Your task to perform on an android device: Show me popular videos on Youtube Image 0: 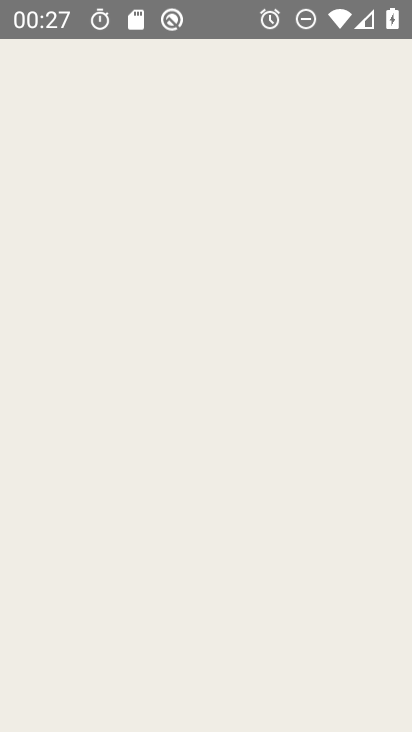
Step 0: drag from (349, 559) to (329, 178)
Your task to perform on an android device: Show me popular videos on Youtube Image 1: 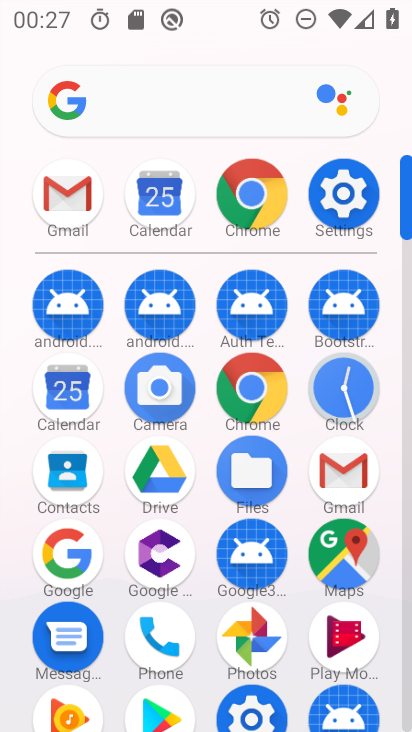
Step 1: drag from (292, 640) to (333, 249)
Your task to perform on an android device: Show me popular videos on Youtube Image 2: 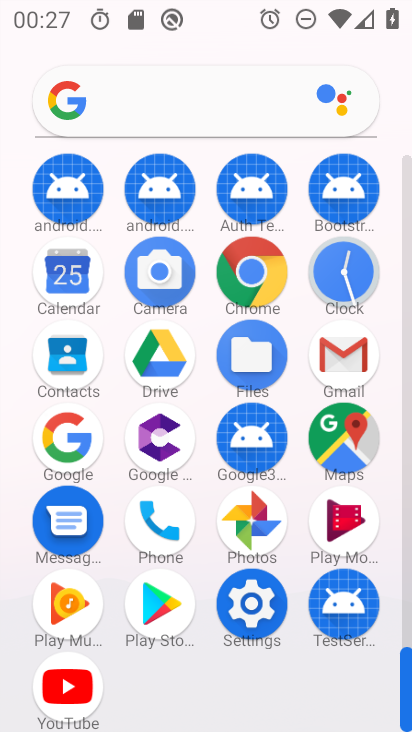
Step 2: click (56, 685)
Your task to perform on an android device: Show me popular videos on Youtube Image 3: 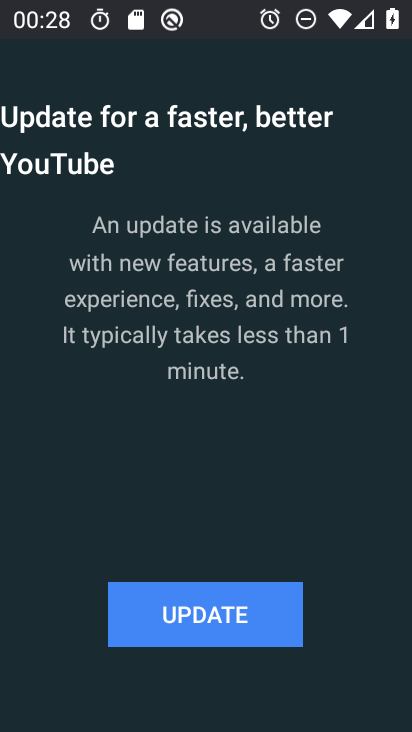
Step 3: task complete